Your task to perform on an android device: Go to ESPN.com Image 0: 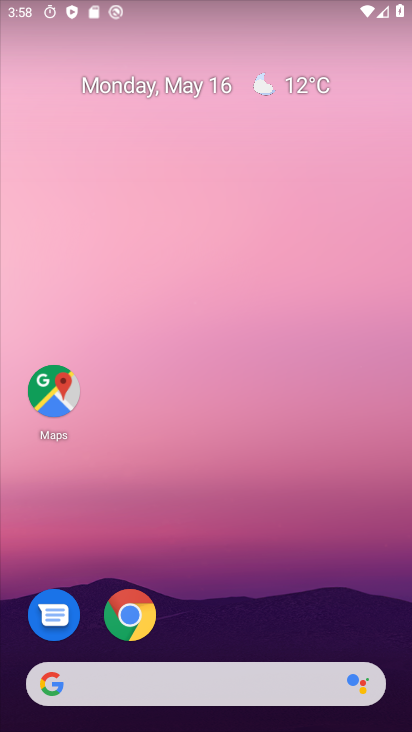
Step 0: drag from (330, 661) to (94, 9)
Your task to perform on an android device: Go to ESPN.com Image 1: 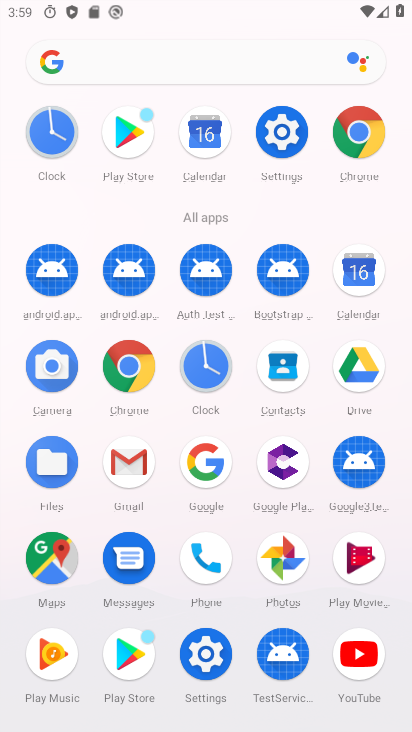
Step 1: click (358, 134)
Your task to perform on an android device: Go to ESPN.com Image 2: 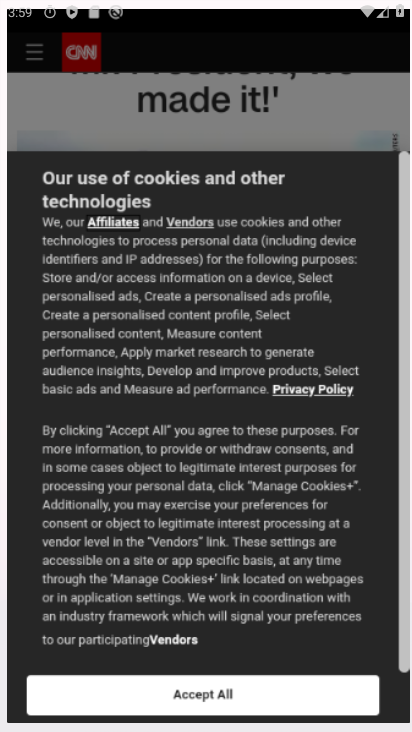
Step 2: click (364, 139)
Your task to perform on an android device: Go to ESPN.com Image 3: 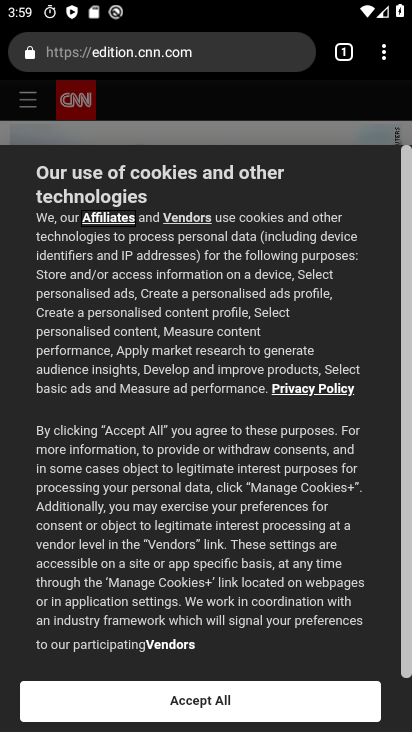
Step 3: drag from (379, 59) to (194, 145)
Your task to perform on an android device: Go to ESPN.com Image 4: 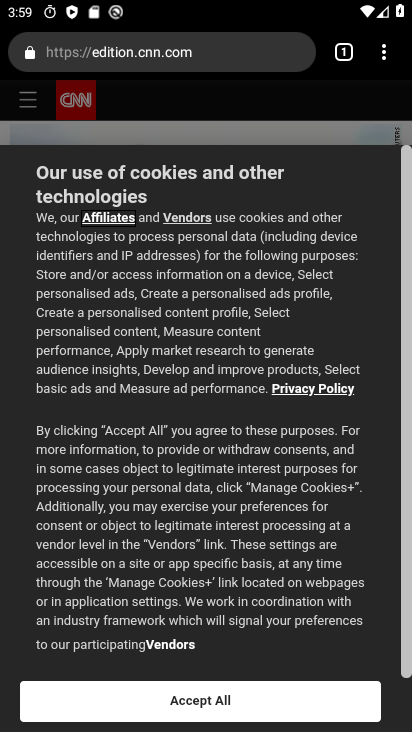
Step 4: click (192, 145)
Your task to perform on an android device: Go to ESPN.com Image 5: 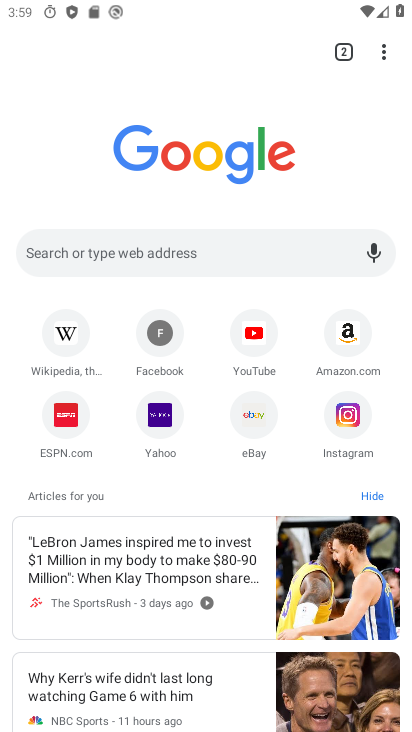
Step 5: click (66, 420)
Your task to perform on an android device: Go to ESPN.com Image 6: 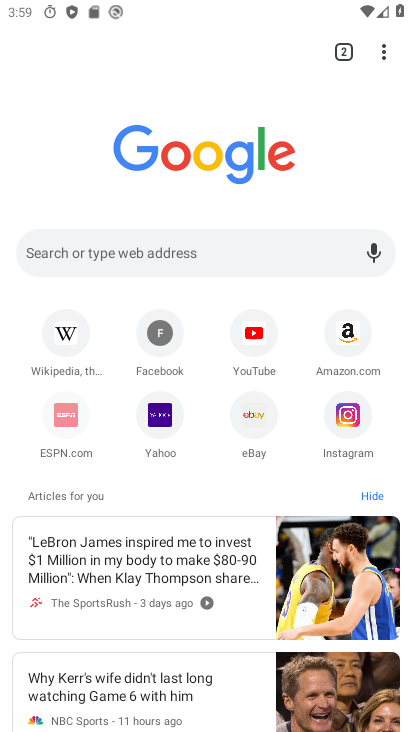
Step 6: click (66, 420)
Your task to perform on an android device: Go to ESPN.com Image 7: 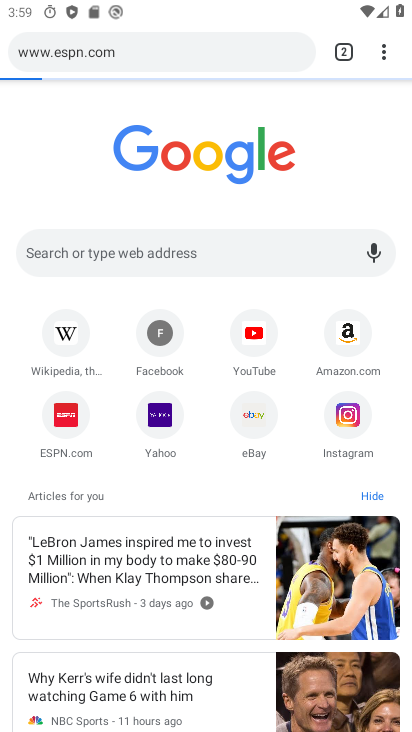
Step 7: click (61, 411)
Your task to perform on an android device: Go to ESPN.com Image 8: 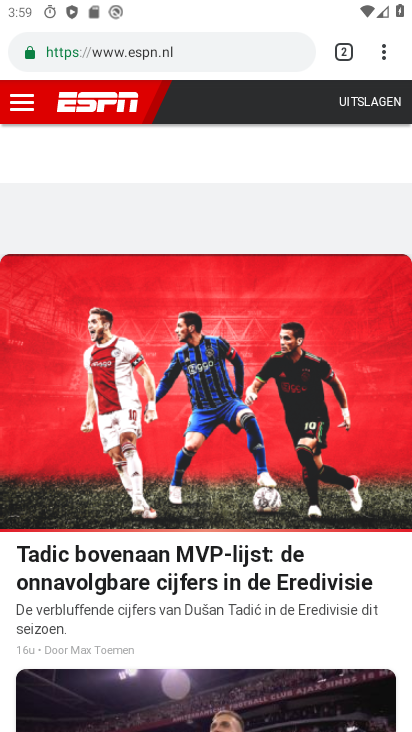
Step 8: task complete